Your task to perform on an android device: Find coffee shops on Maps Image 0: 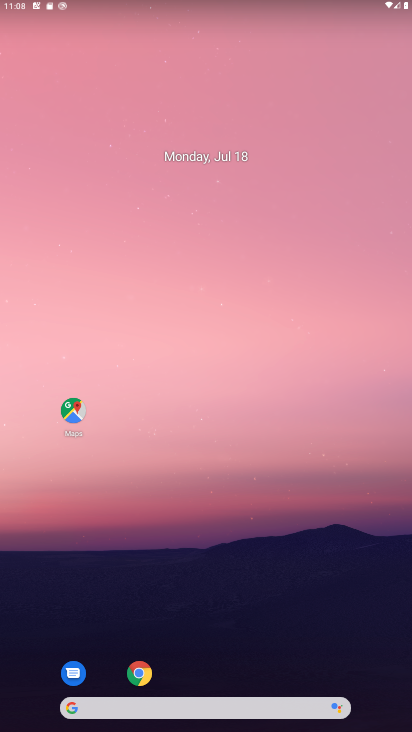
Step 0: click (66, 428)
Your task to perform on an android device: Find coffee shops on Maps Image 1: 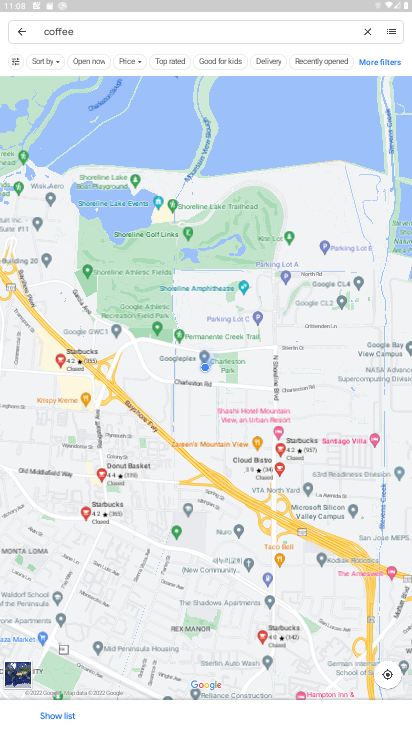
Step 1: click (184, 28)
Your task to perform on an android device: Find coffee shops on Maps Image 2: 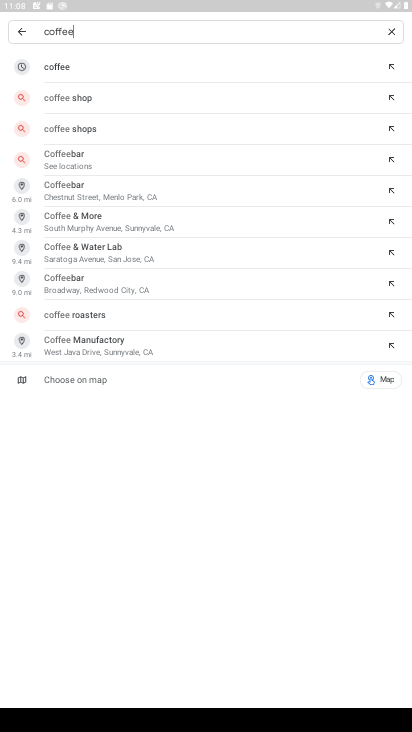
Step 2: click (93, 100)
Your task to perform on an android device: Find coffee shops on Maps Image 3: 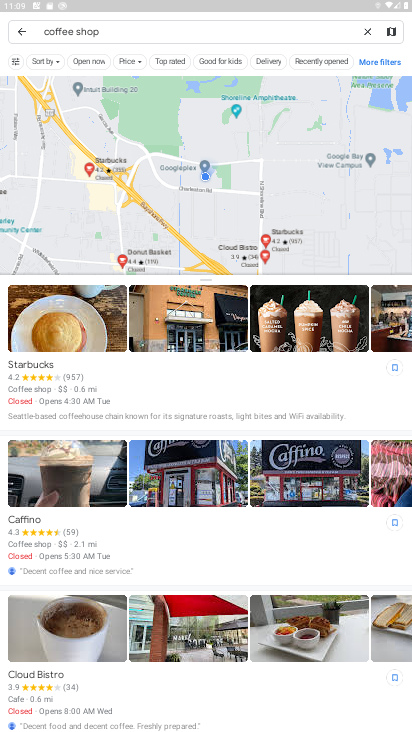
Step 3: task complete